Your task to perform on an android device: Open sound settings Image 0: 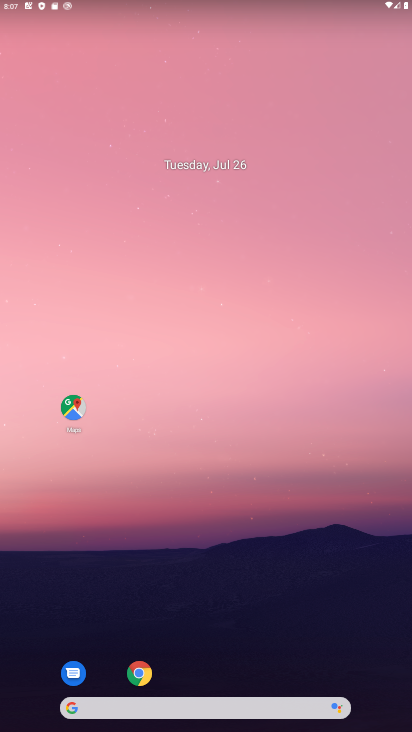
Step 0: drag from (341, 655) to (294, 188)
Your task to perform on an android device: Open sound settings Image 1: 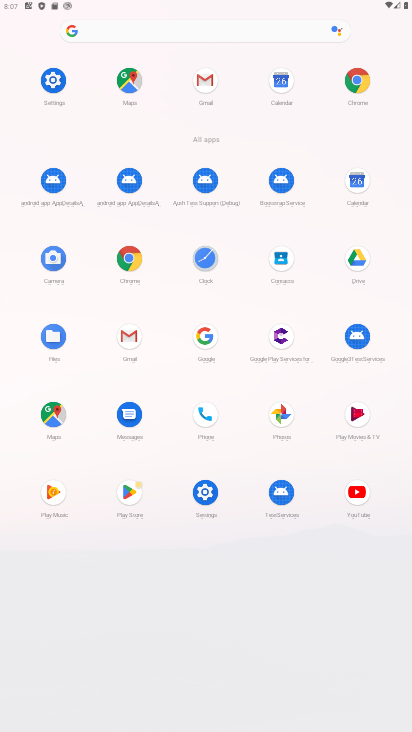
Step 1: click (204, 495)
Your task to perform on an android device: Open sound settings Image 2: 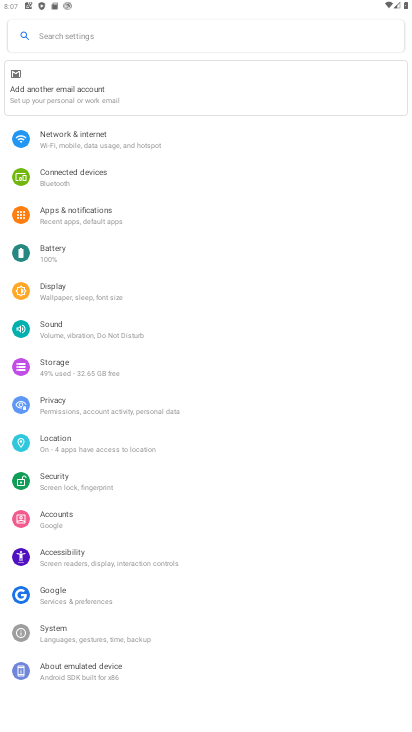
Step 2: click (56, 322)
Your task to perform on an android device: Open sound settings Image 3: 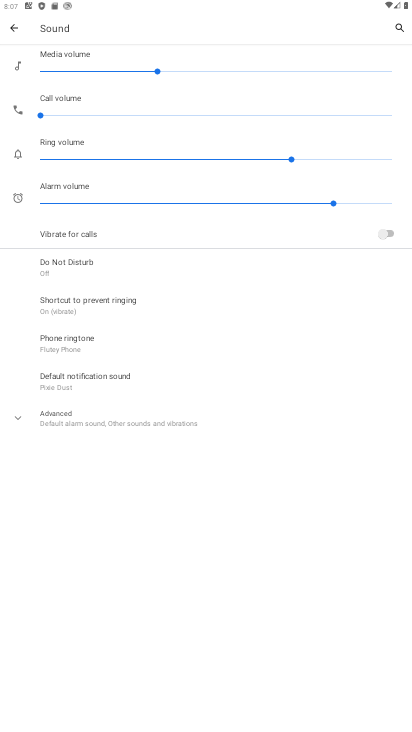
Step 3: task complete